Your task to perform on an android device: Open display settings Image 0: 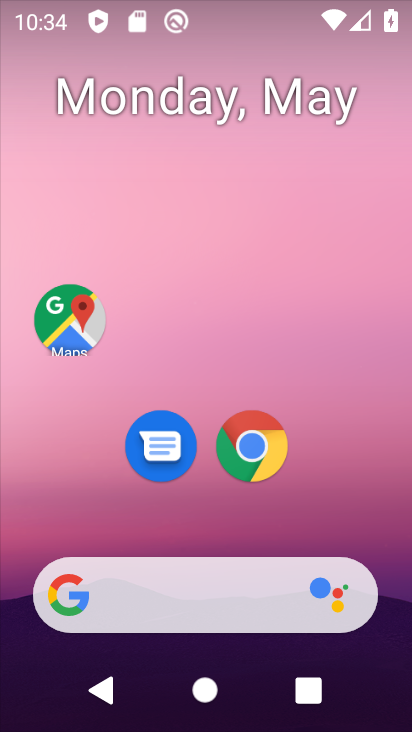
Step 0: drag from (177, 574) to (135, 51)
Your task to perform on an android device: Open display settings Image 1: 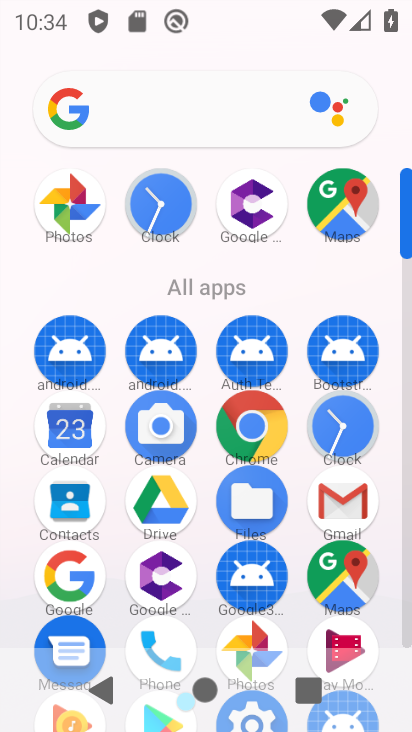
Step 1: drag from (199, 602) to (154, 179)
Your task to perform on an android device: Open display settings Image 2: 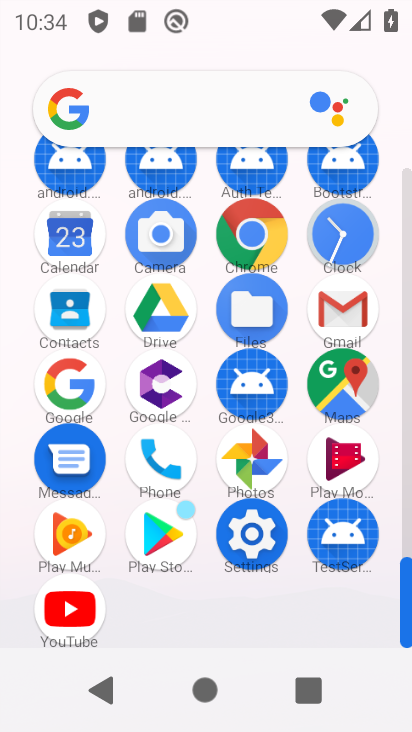
Step 2: click (241, 543)
Your task to perform on an android device: Open display settings Image 3: 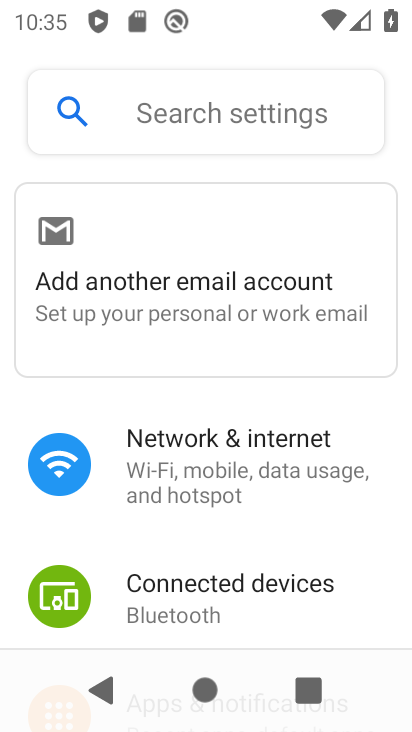
Step 3: drag from (189, 558) to (168, 154)
Your task to perform on an android device: Open display settings Image 4: 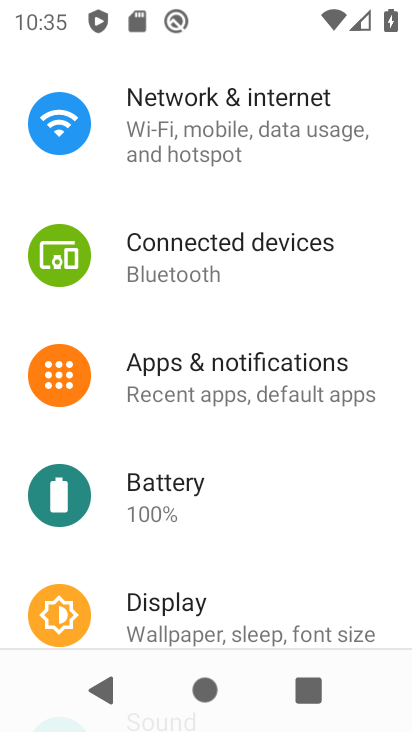
Step 4: click (176, 593)
Your task to perform on an android device: Open display settings Image 5: 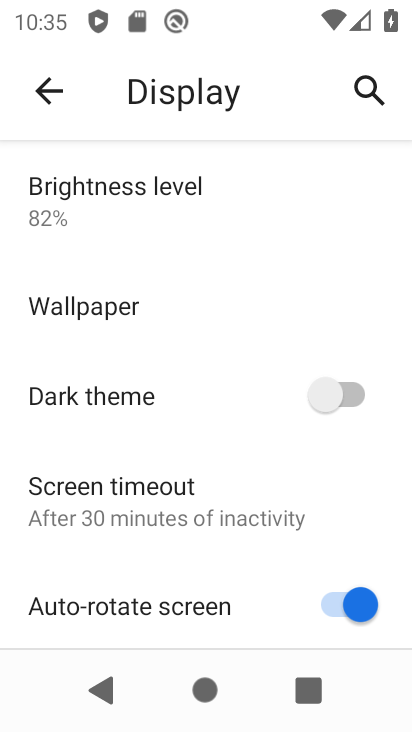
Step 5: task complete